Your task to perform on an android device: See recent photos Image 0: 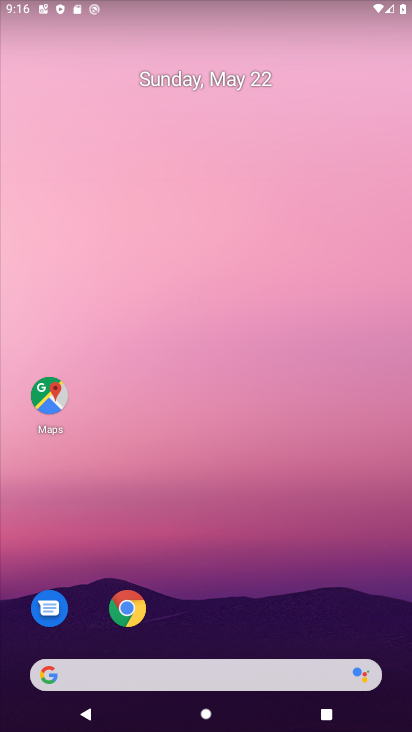
Step 0: drag from (254, 454) to (287, 13)
Your task to perform on an android device: See recent photos Image 1: 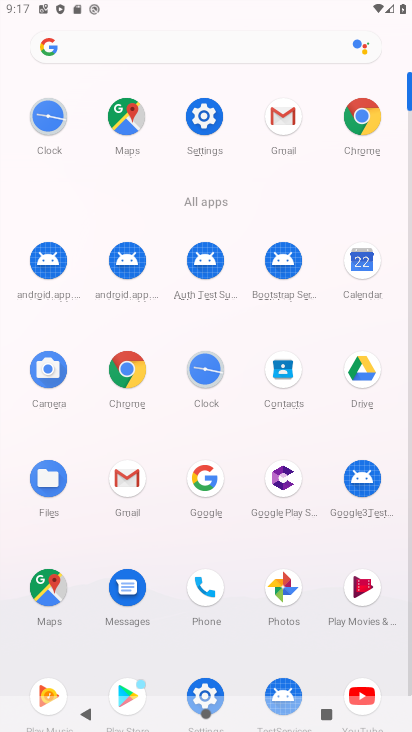
Step 1: click (278, 581)
Your task to perform on an android device: See recent photos Image 2: 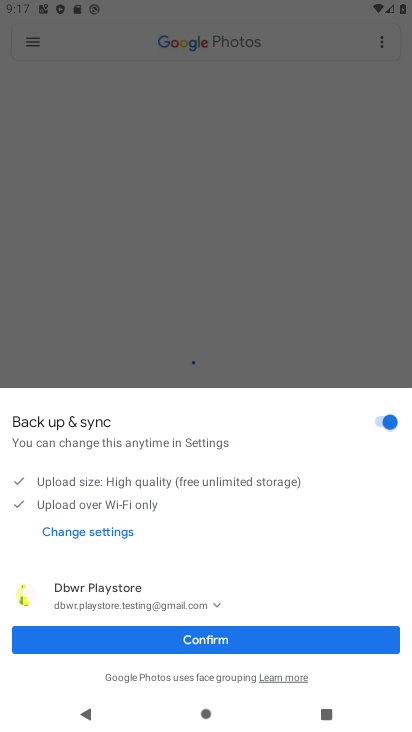
Step 2: click (77, 640)
Your task to perform on an android device: See recent photos Image 3: 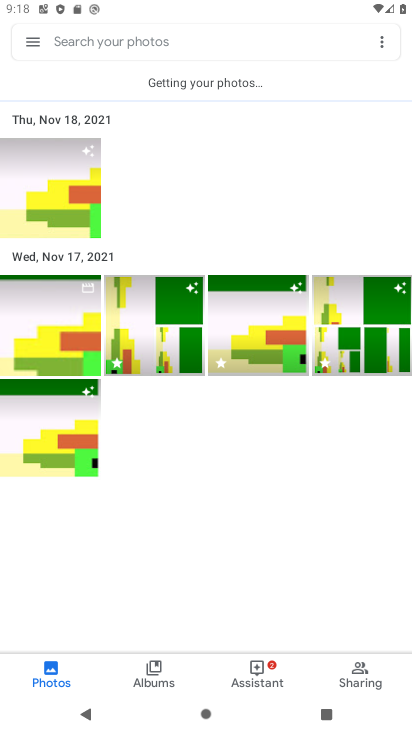
Step 3: task complete